Your task to perform on an android device: Show me recent news Image 0: 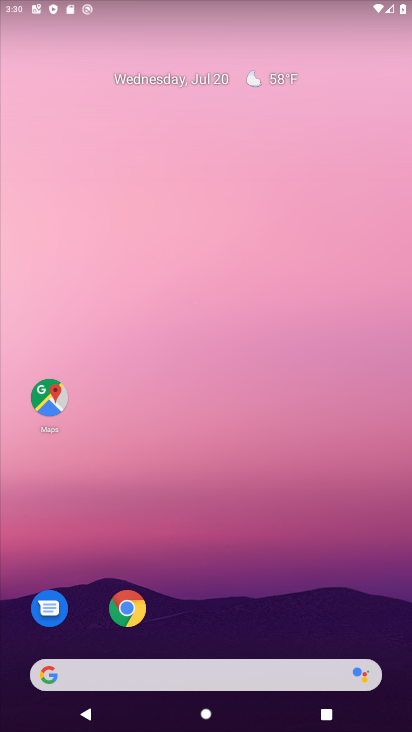
Step 0: drag from (332, 605) to (202, 149)
Your task to perform on an android device: Show me recent news Image 1: 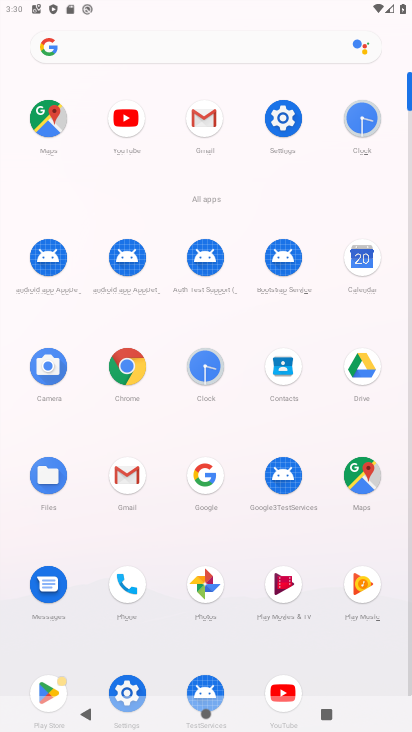
Step 1: click (213, 56)
Your task to perform on an android device: Show me recent news Image 2: 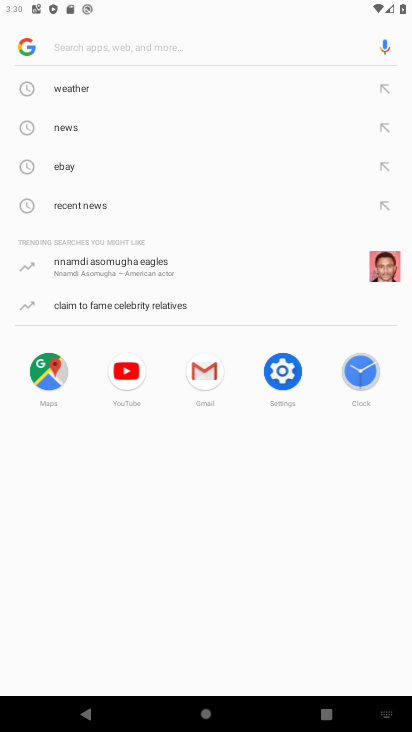
Step 2: click (78, 132)
Your task to perform on an android device: Show me recent news Image 3: 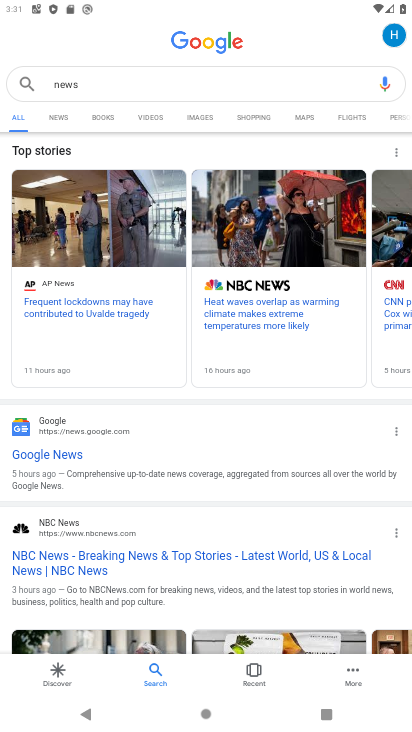
Step 3: task complete